Your task to perform on an android device: View the shopping cart on newegg. Add "dell xps" to the cart on newegg Image 0: 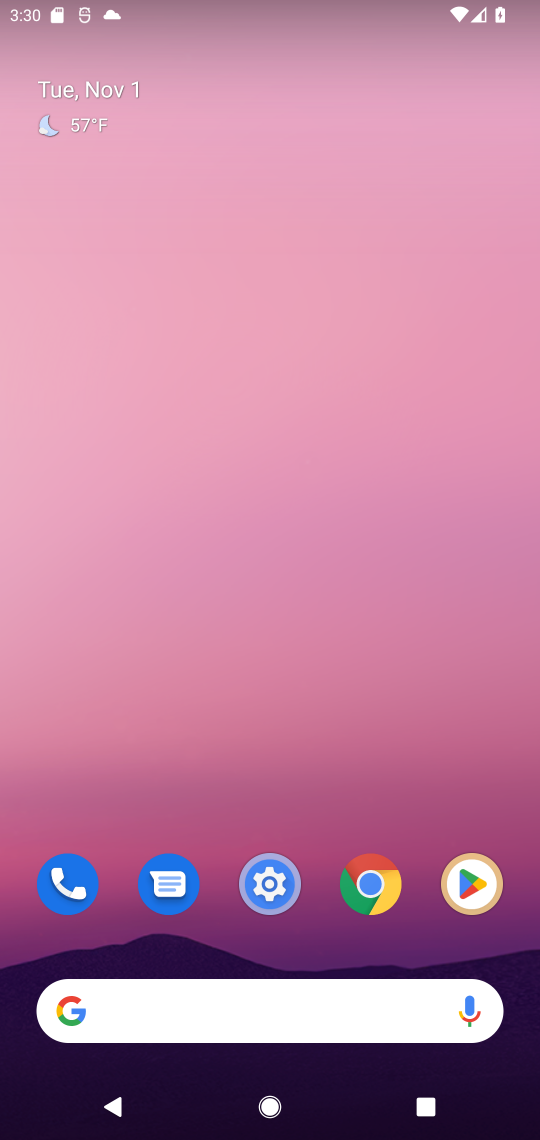
Step 0: click (97, 1008)
Your task to perform on an android device: View the shopping cart on newegg. Add "dell xps" to the cart on newegg Image 1: 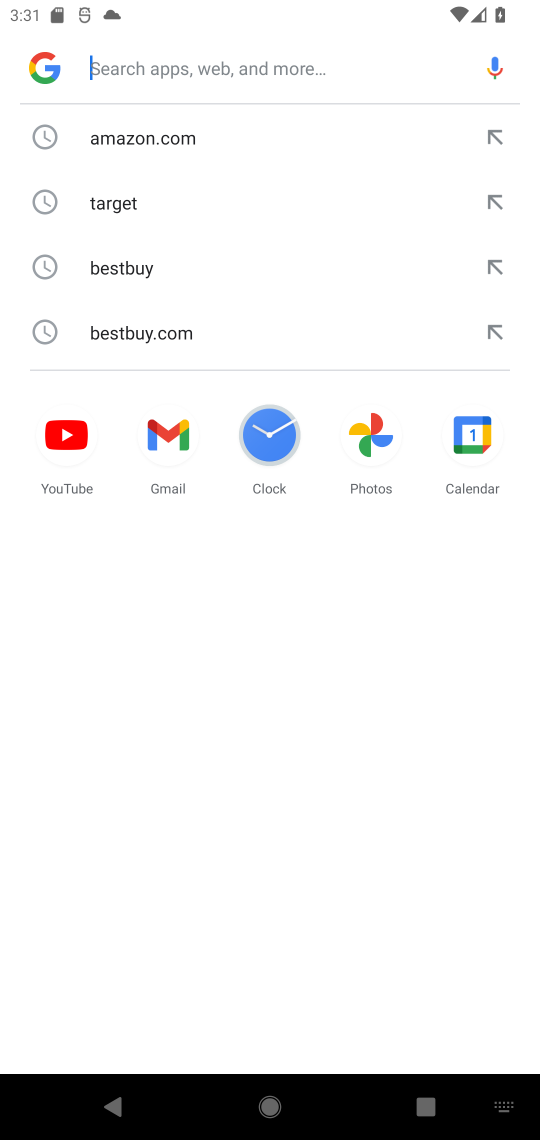
Step 1: type "newegg"
Your task to perform on an android device: View the shopping cart on newegg. Add "dell xps" to the cart on newegg Image 2: 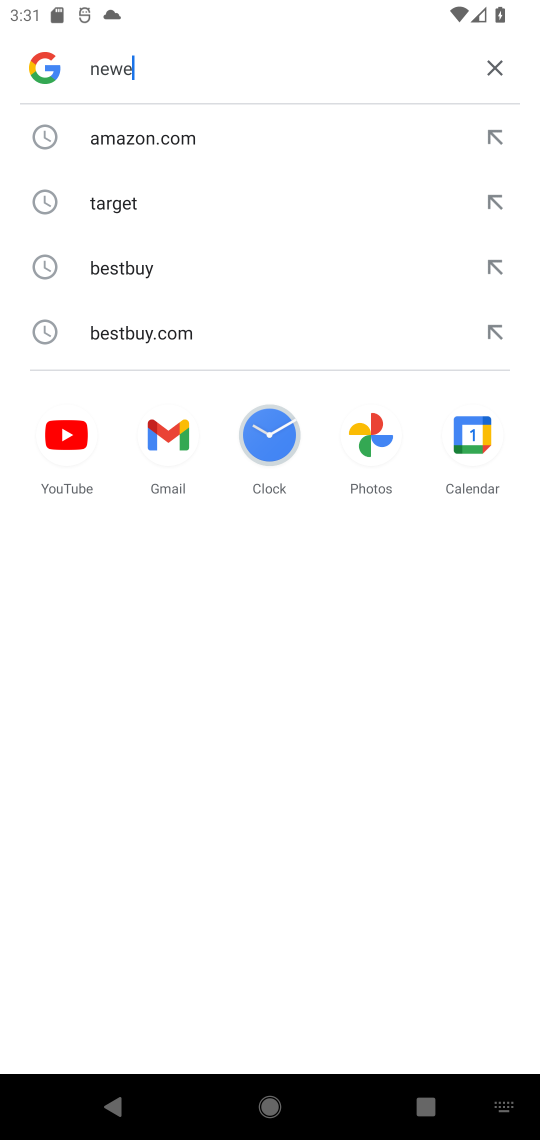
Step 2: press enter
Your task to perform on an android device: View the shopping cart on newegg. Add "dell xps" to the cart on newegg Image 3: 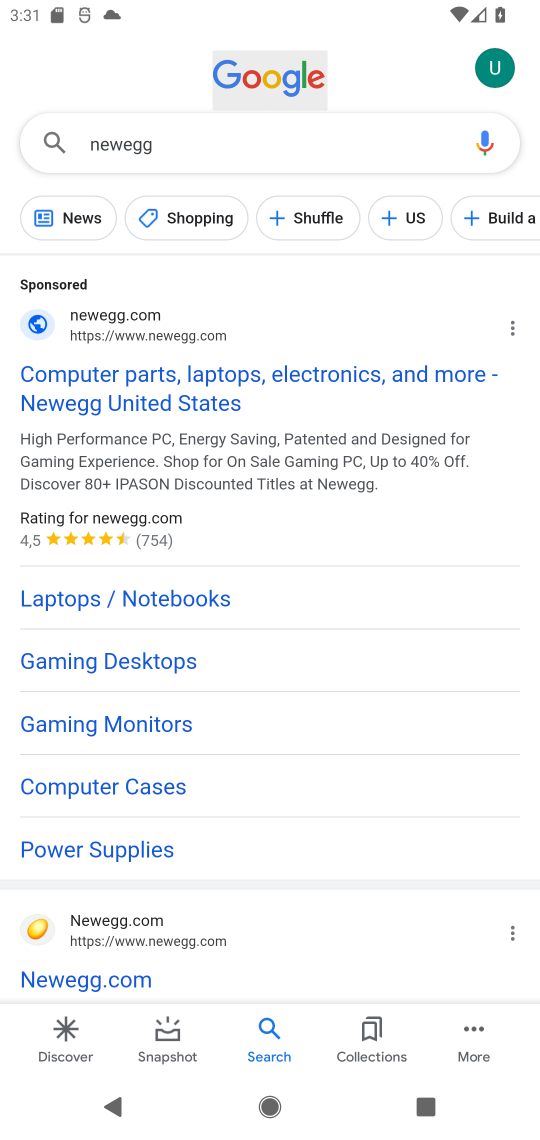
Step 3: drag from (374, 727) to (380, 341)
Your task to perform on an android device: View the shopping cart on newegg. Add "dell xps" to the cart on newegg Image 4: 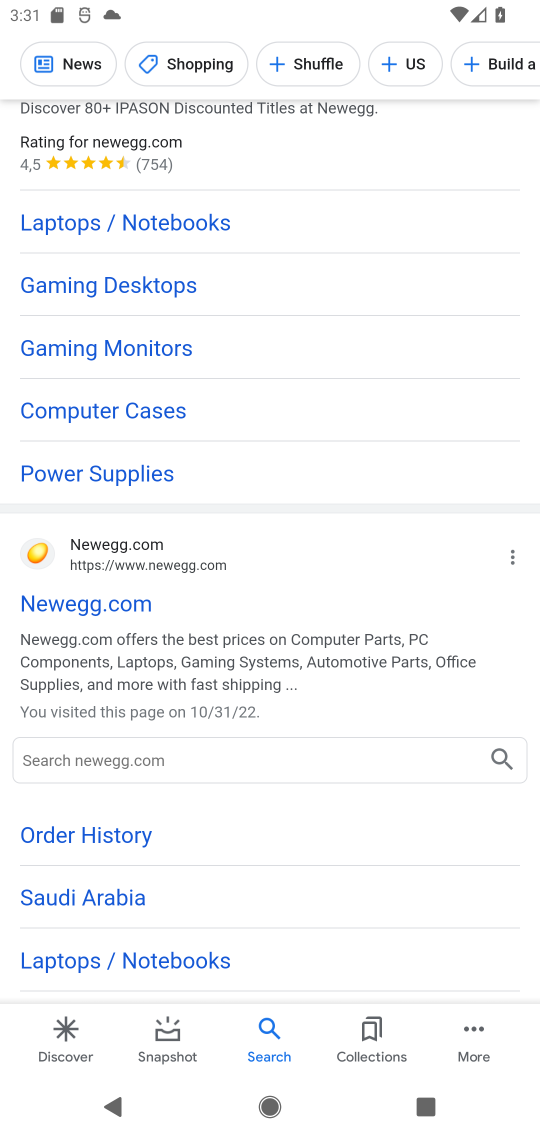
Step 4: click (77, 607)
Your task to perform on an android device: View the shopping cart on newegg. Add "dell xps" to the cart on newegg Image 5: 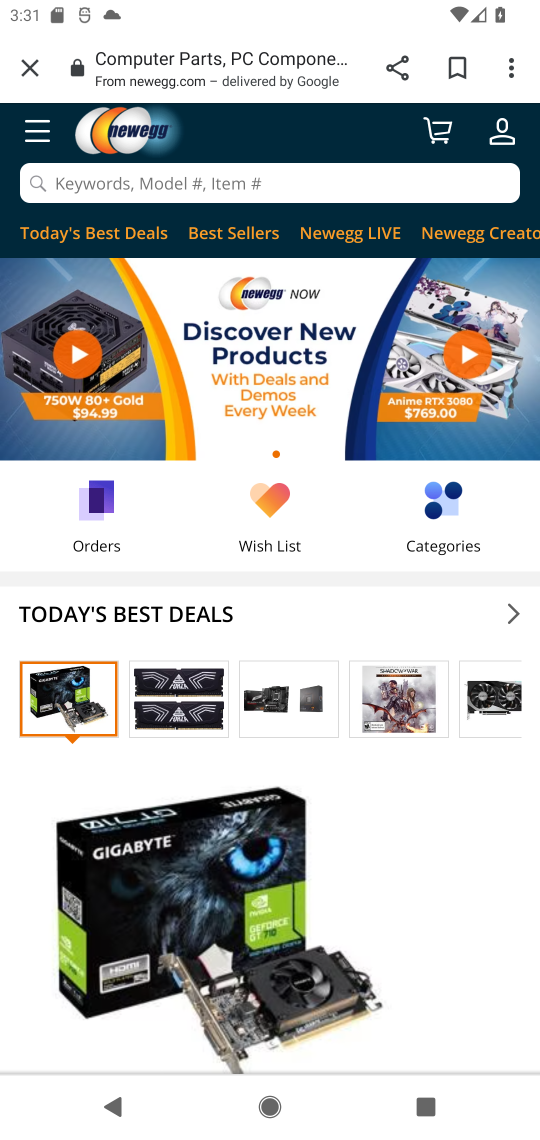
Step 5: click (433, 127)
Your task to perform on an android device: View the shopping cart on newegg. Add "dell xps" to the cart on newegg Image 6: 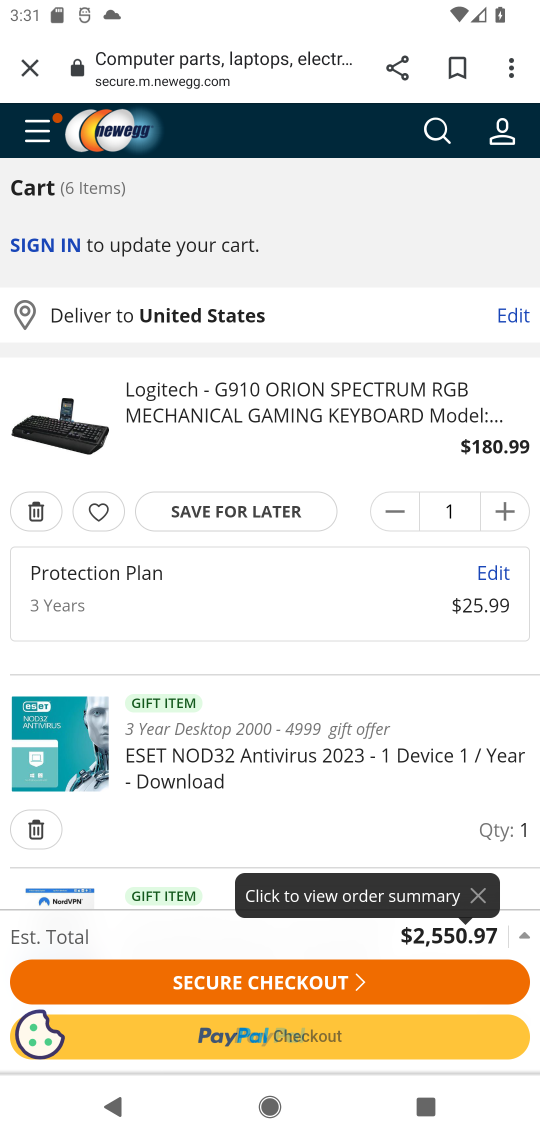
Step 6: click (435, 131)
Your task to perform on an android device: View the shopping cart on newegg. Add "dell xps" to the cart on newegg Image 7: 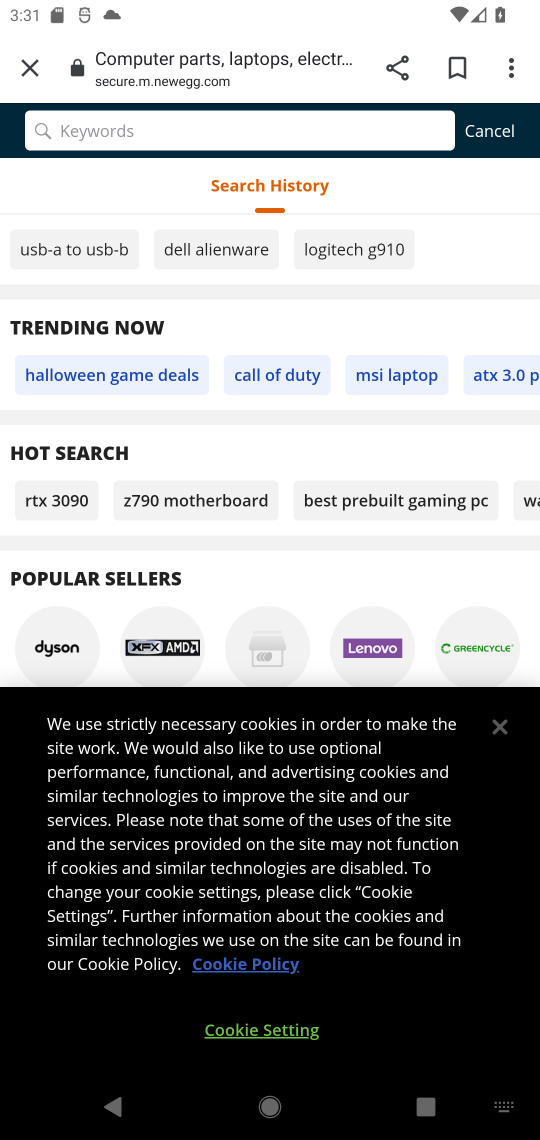
Step 7: click (95, 131)
Your task to perform on an android device: View the shopping cart on newegg. Add "dell xps" to the cart on newegg Image 8: 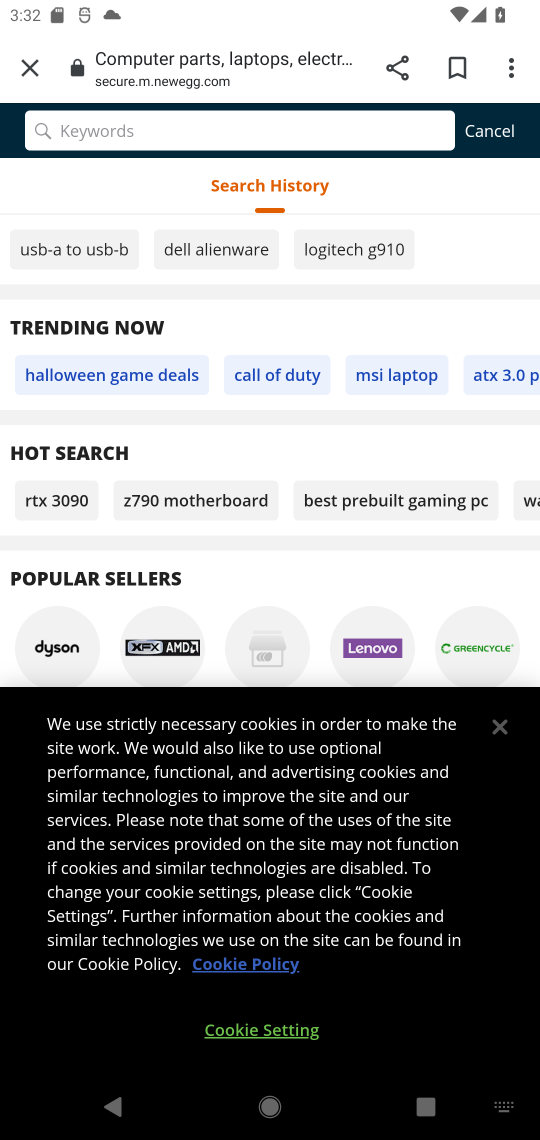
Step 8: type "dell xps"
Your task to perform on an android device: View the shopping cart on newegg. Add "dell xps" to the cart on newegg Image 9: 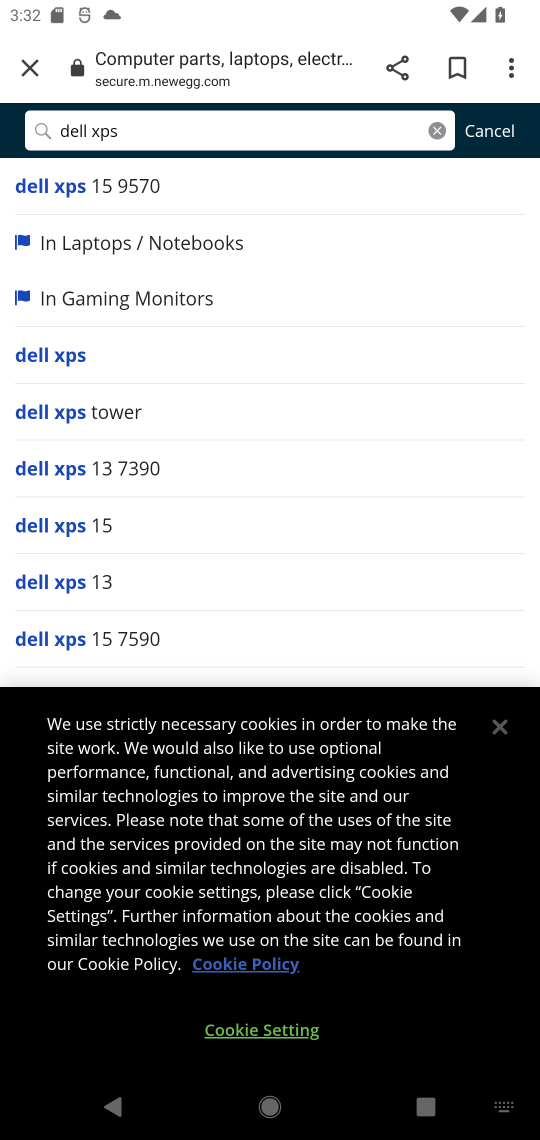
Step 9: click (117, 349)
Your task to perform on an android device: View the shopping cart on newegg. Add "dell xps" to the cart on newegg Image 10: 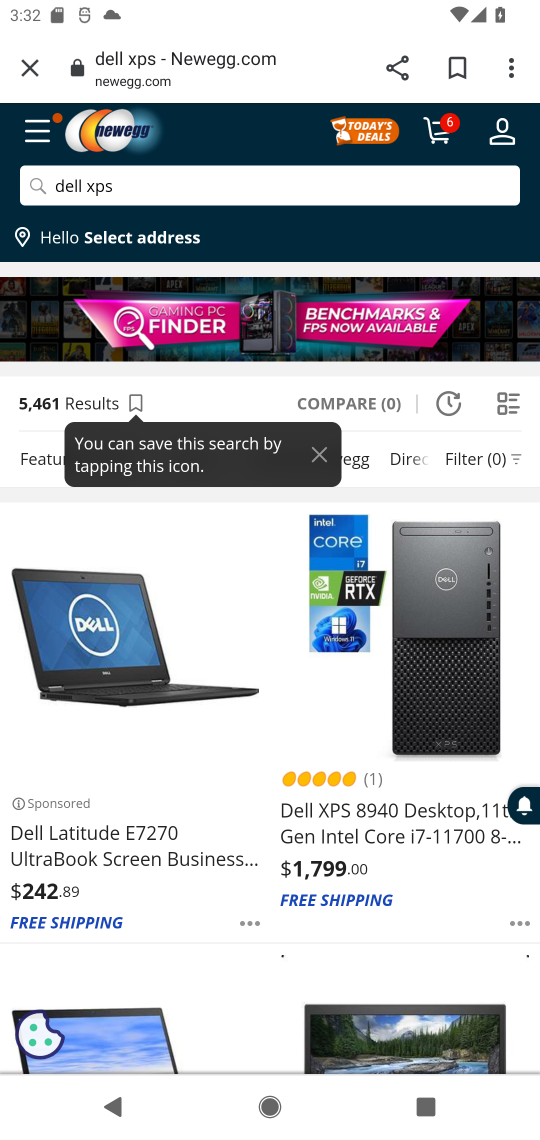
Step 10: drag from (228, 897) to (249, 648)
Your task to perform on an android device: View the shopping cart on newegg. Add "dell xps" to the cart on newegg Image 11: 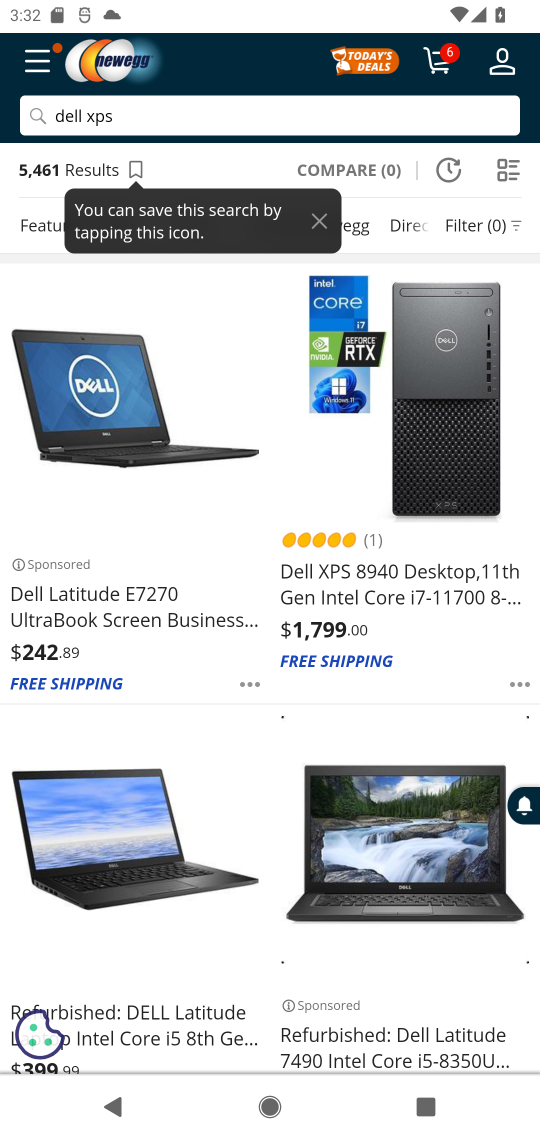
Step 11: click (363, 590)
Your task to perform on an android device: View the shopping cart on newegg. Add "dell xps" to the cart on newegg Image 12: 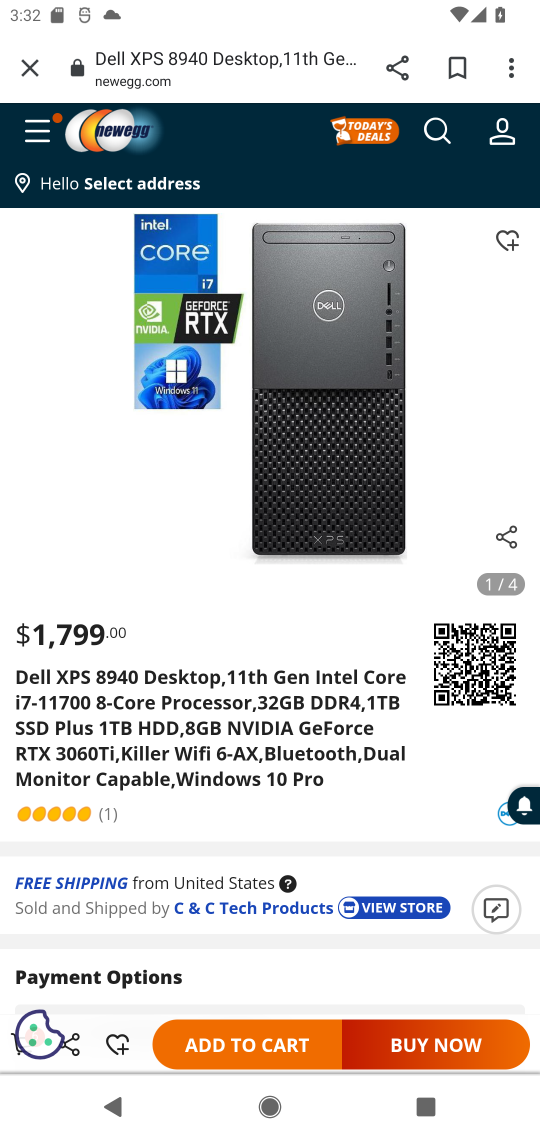
Step 12: drag from (291, 772) to (301, 360)
Your task to perform on an android device: View the shopping cart on newegg. Add "dell xps" to the cart on newegg Image 13: 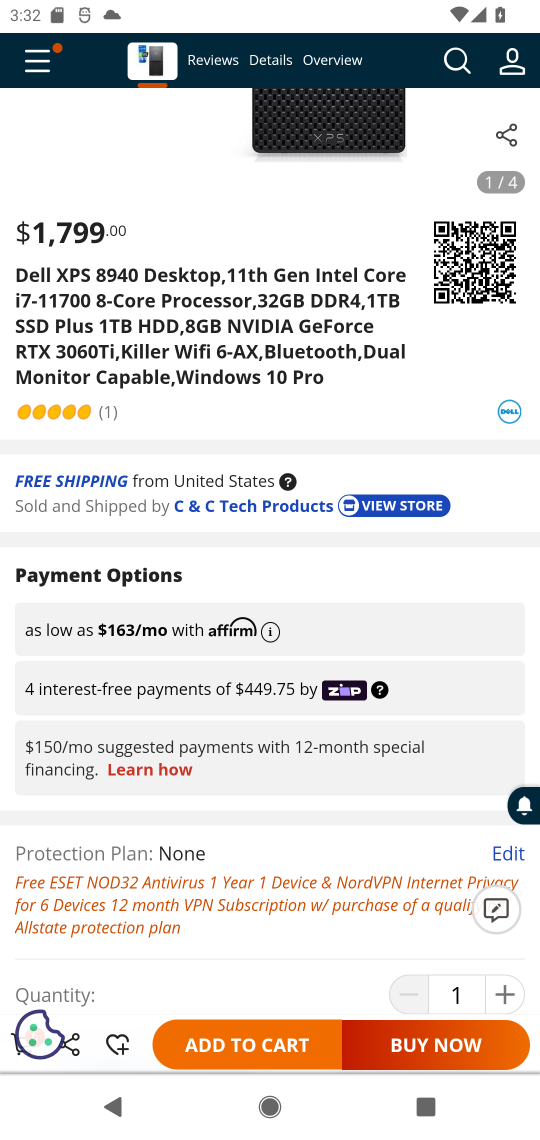
Step 13: click (222, 1048)
Your task to perform on an android device: View the shopping cart on newegg. Add "dell xps" to the cart on newegg Image 14: 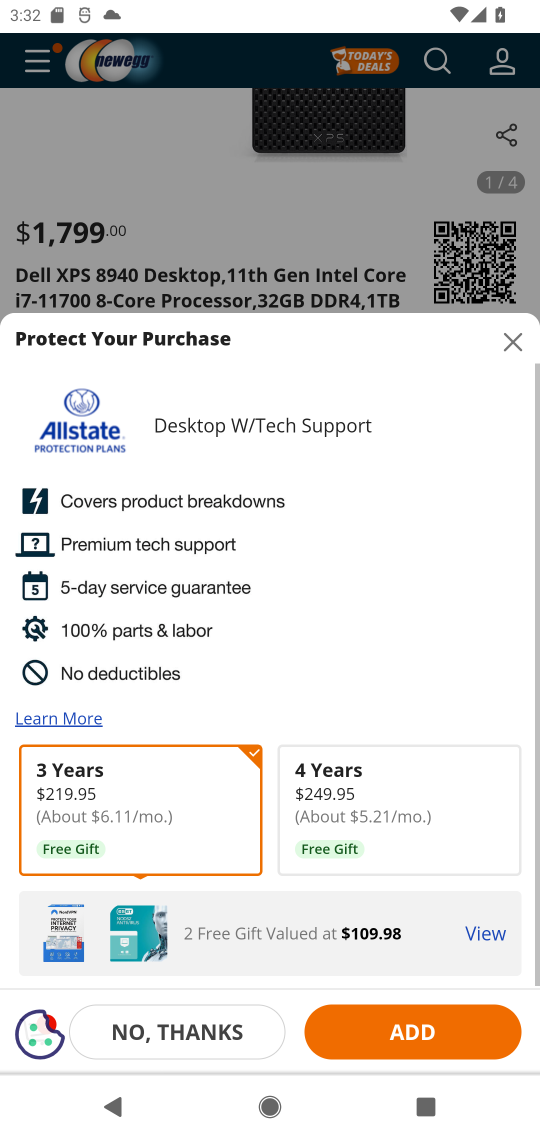
Step 14: click (389, 1038)
Your task to perform on an android device: View the shopping cart on newegg. Add "dell xps" to the cart on newegg Image 15: 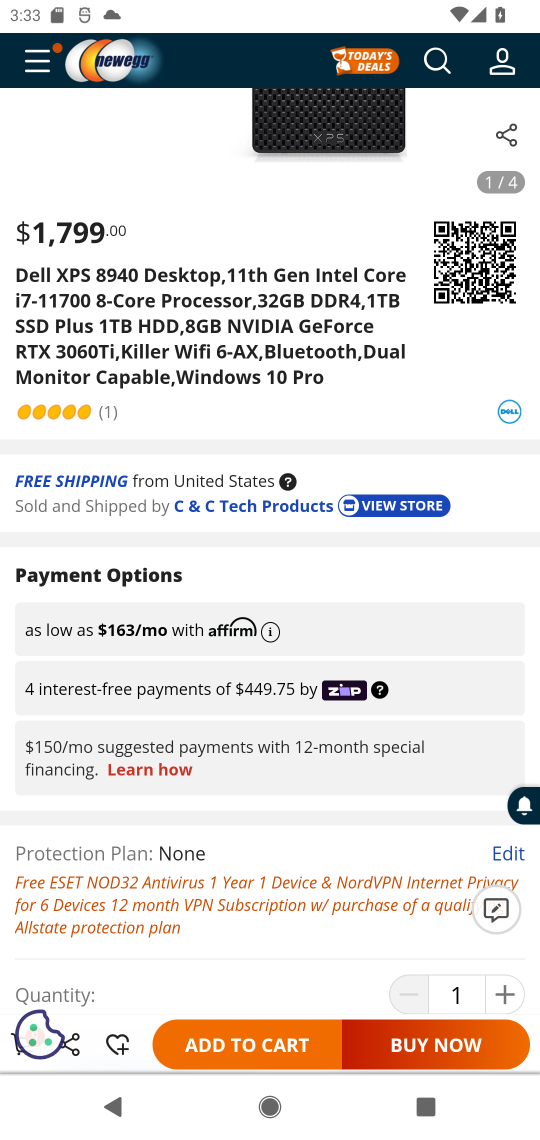
Step 15: task complete